Your task to perform on an android device: Go to CNN.com Image 0: 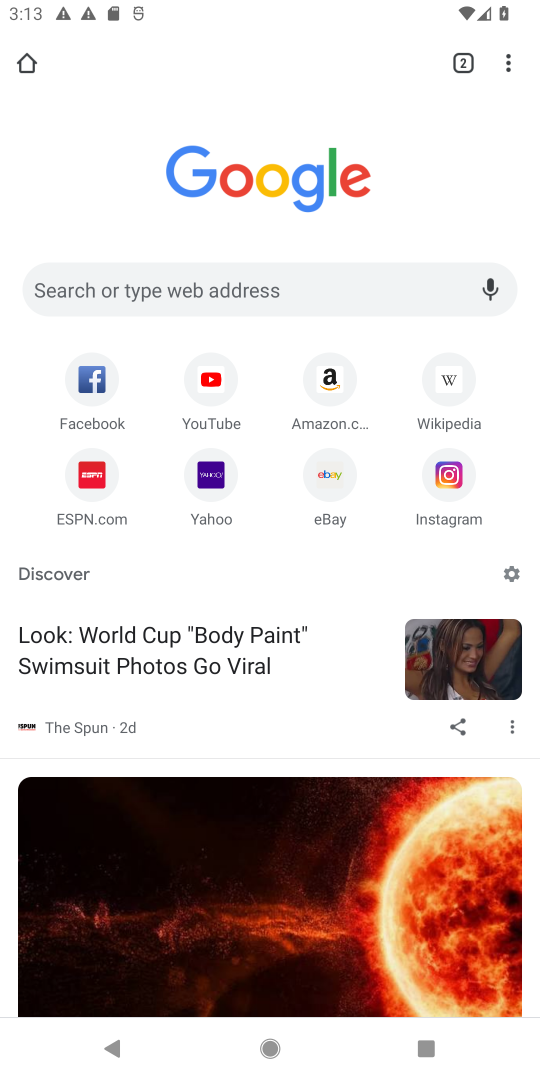
Step 0: click (89, 281)
Your task to perform on an android device: Go to CNN.com Image 1: 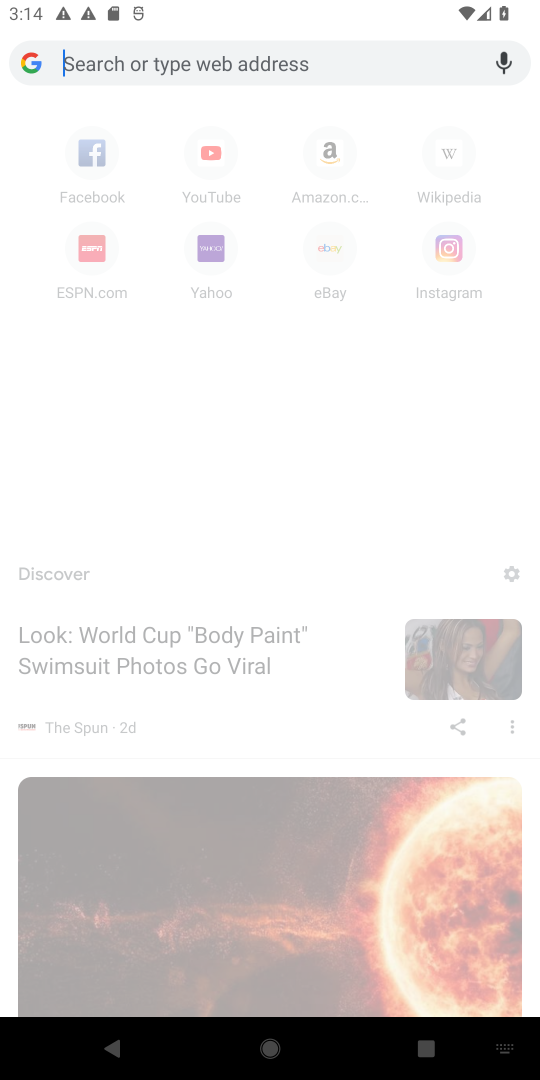
Step 1: type "CNN.com"
Your task to perform on an android device: Go to CNN.com Image 2: 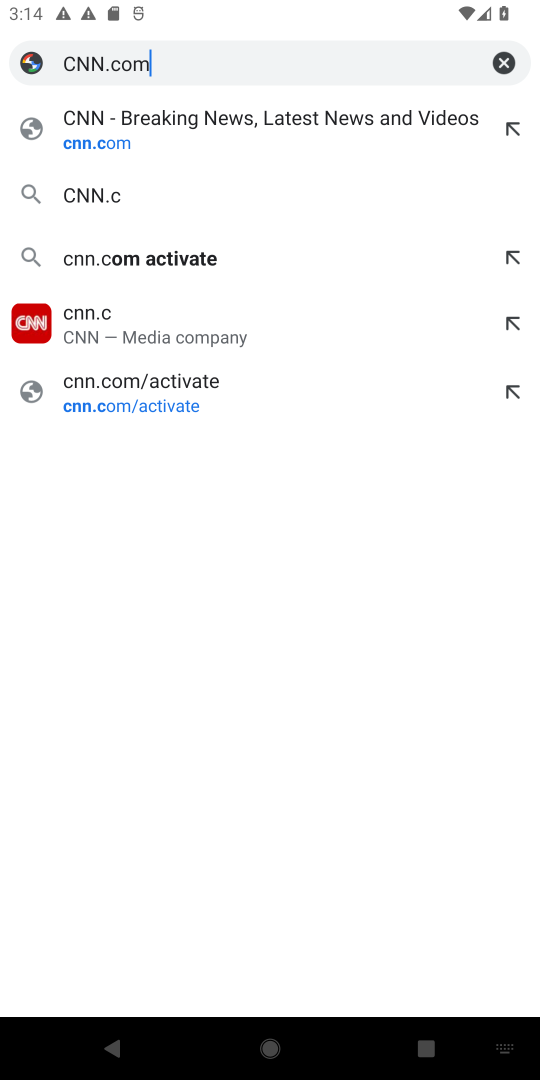
Step 2: type ""
Your task to perform on an android device: Go to CNN.com Image 3: 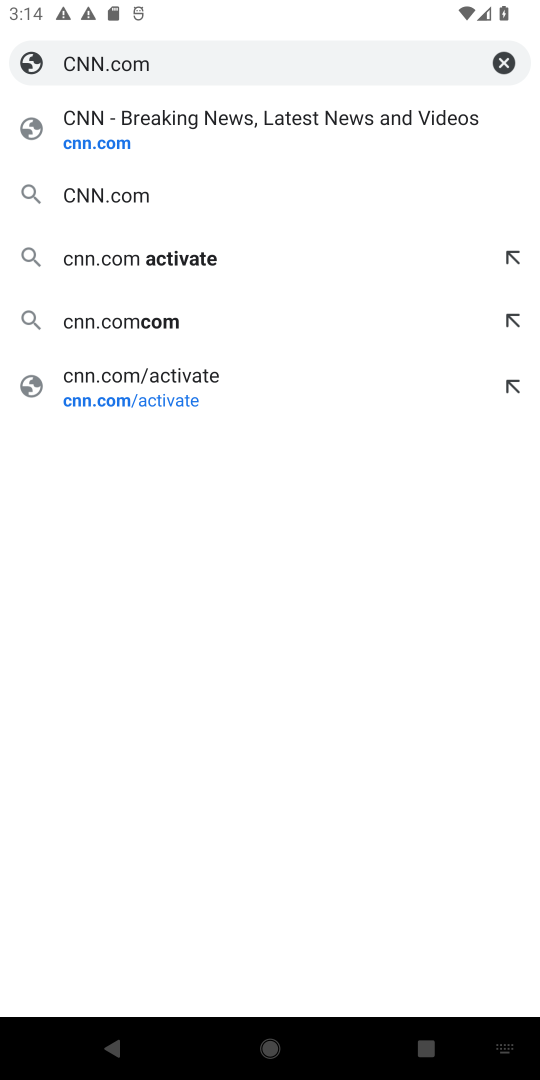
Step 3: click (91, 127)
Your task to perform on an android device: Go to CNN.com Image 4: 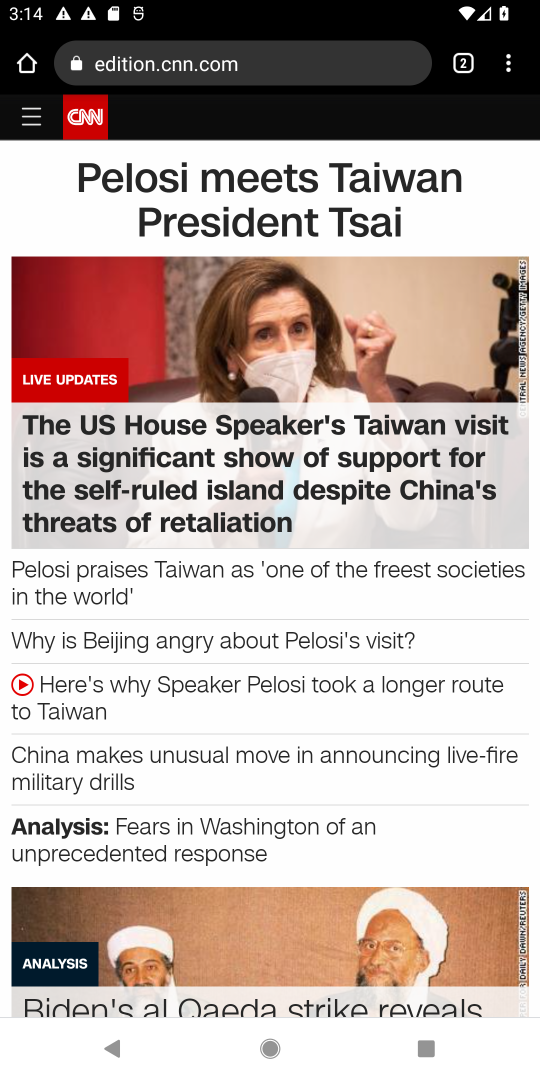
Step 4: task complete